Your task to perform on an android device: Go to settings Image 0: 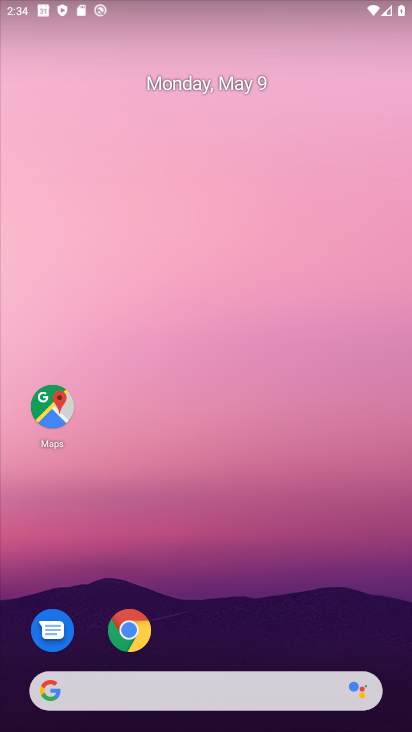
Step 0: drag from (226, 403) to (198, 102)
Your task to perform on an android device: Go to settings Image 1: 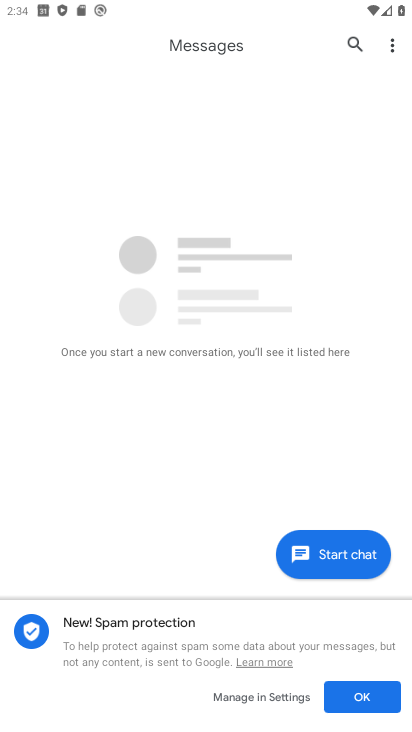
Step 1: press home button
Your task to perform on an android device: Go to settings Image 2: 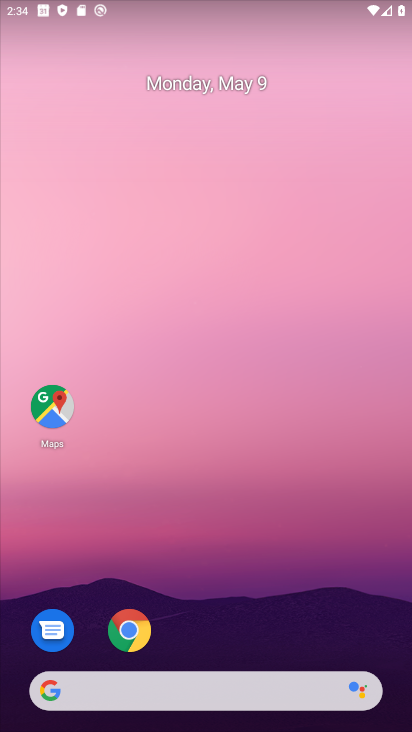
Step 2: drag from (234, 645) to (198, 296)
Your task to perform on an android device: Go to settings Image 3: 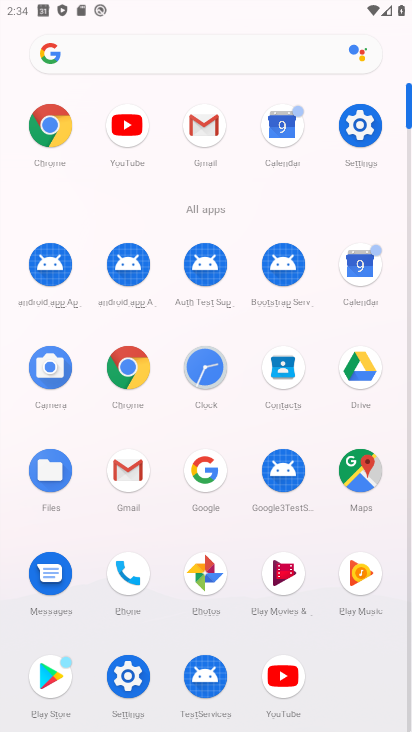
Step 3: click (360, 134)
Your task to perform on an android device: Go to settings Image 4: 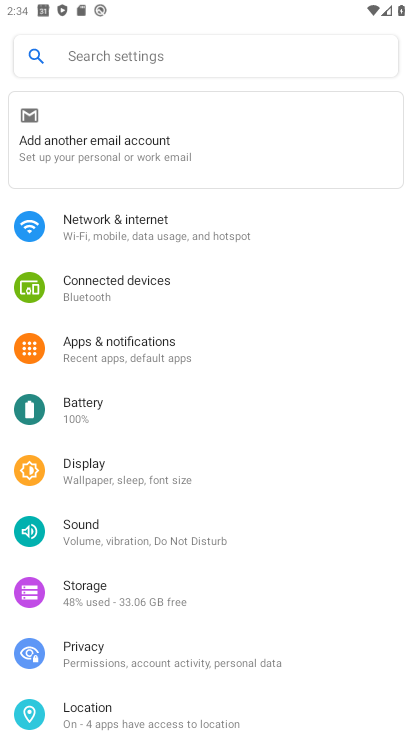
Step 4: task complete